Your task to perform on an android device: turn smart compose on in the gmail app Image 0: 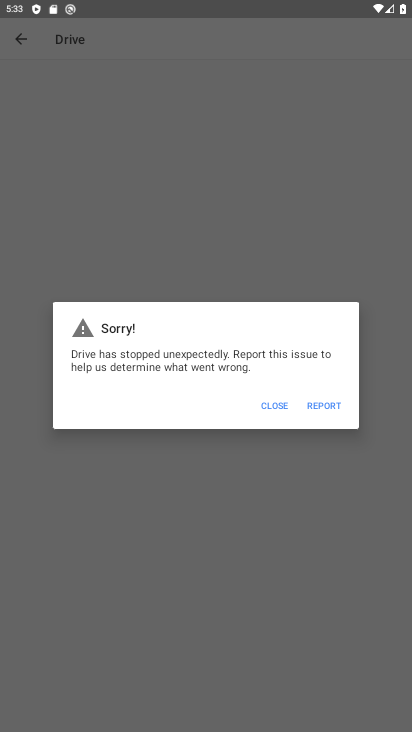
Step 0: press home button
Your task to perform on an android device: turn smart compose on in the gmail app Image 1: 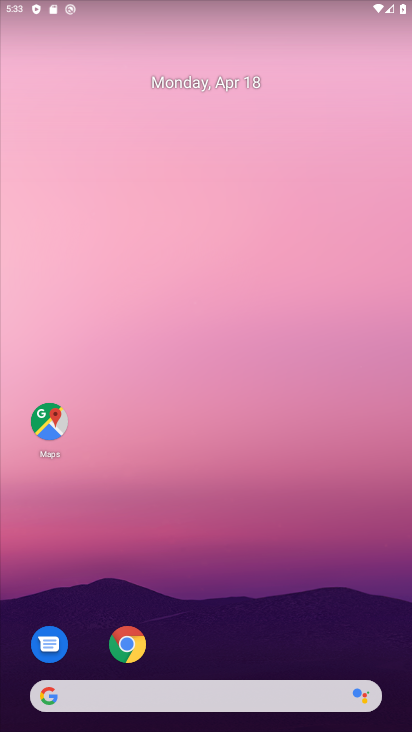
Step 1: drag from (215, 579) to (251, 36)
Your task to perform on an android device: turn smart compose on in the gmail app Image 2: 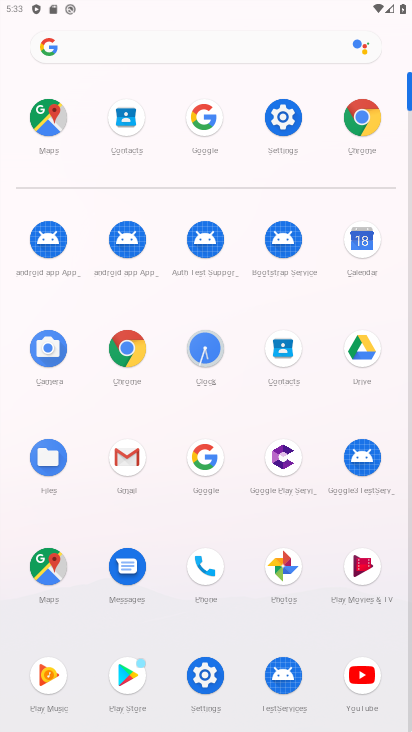
Step 2: click (123, 455)
Your task to perform on an android device: turn smart compose on in the gmail app Image 3: 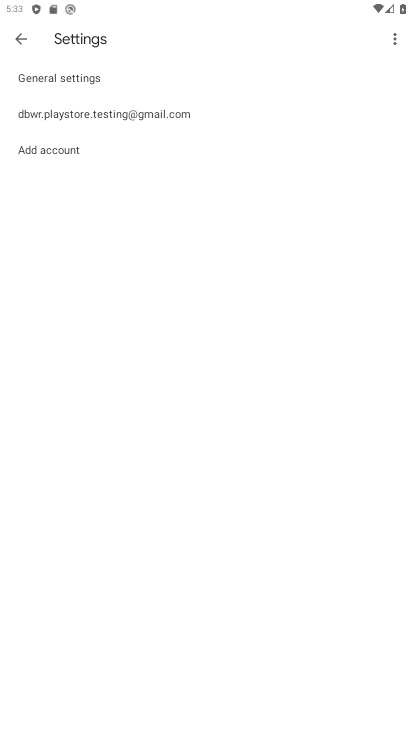
Step 3: click (151, 111)
Your task to perform on an android device: turn smart compose on in the gmail app Image 4: 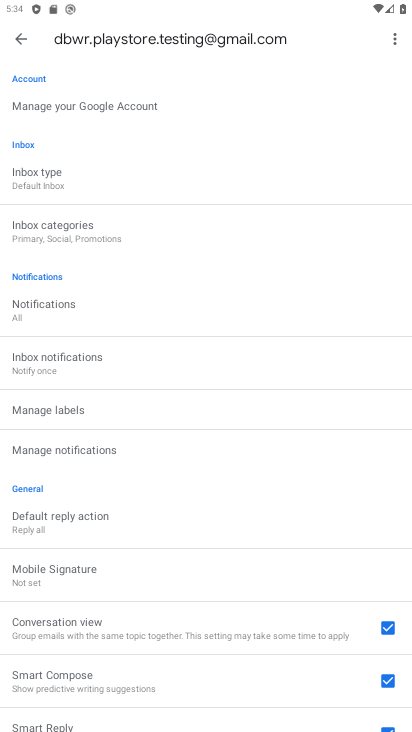
Step 4: task complete